Your task to perform on an android device: move an email to a new category in the gmail app Image 0: 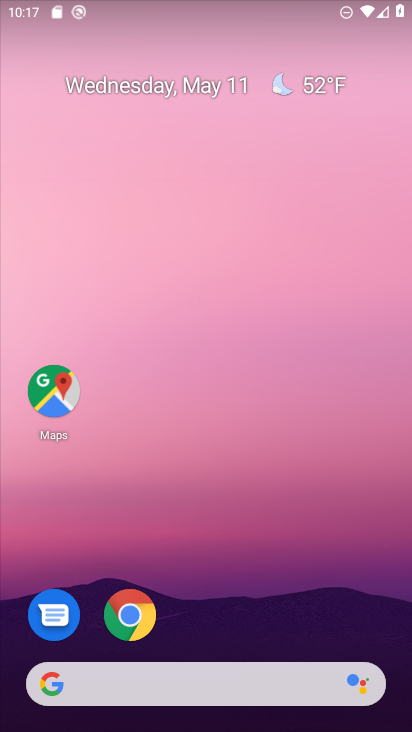
Step 0: drag from (225, 612) to (216, 104)
Your task to perform on an android device: move an email to a new category in the gmail app Image 1: 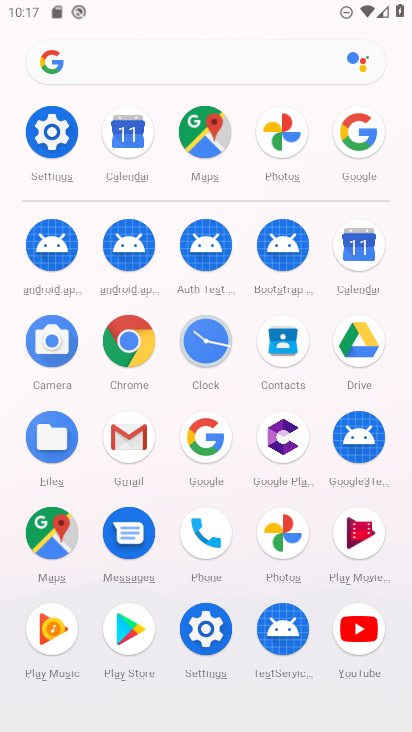
Step 1: click (128, 435)
Your task to perform on an android device: move an email to a new category in the gmail app Image 2: 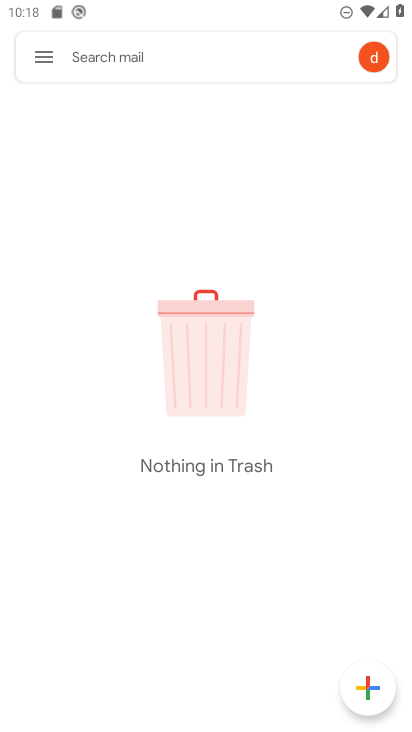
Step 2: click (46, 58)
Your task to perform on an android device: move an email to a new category in the gmail app Image 3: 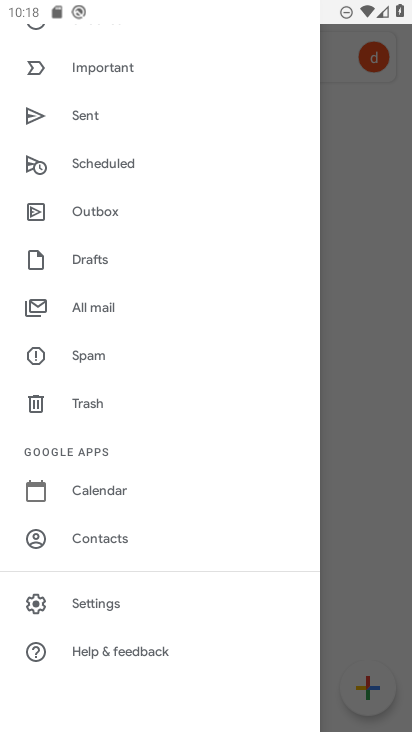
Step 3: click (100, 304)
Your task to perform on an android device: move an email to a new category in the gmail app Image 4: 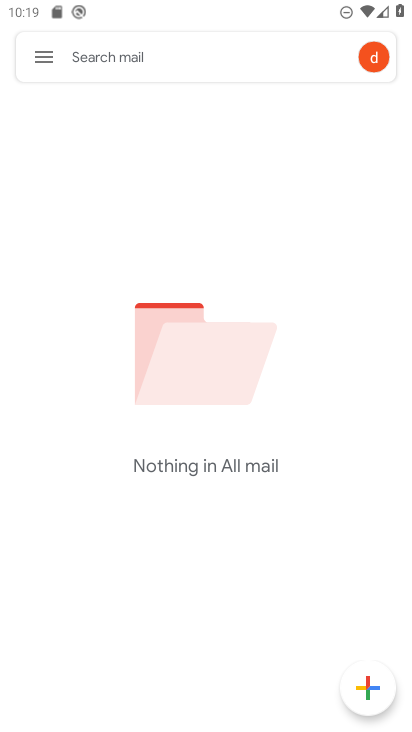
Step 4: task complete